Your task to perform on an android device: Open calendar and show me the first week of next month Image 0: 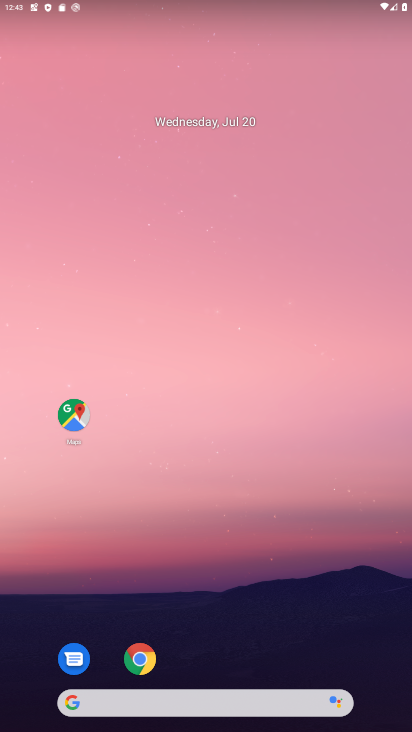
Step 0: drag from (285, 501) to (268, 123)
Your task to perform on an android device: Open calendar and show me the first week of next month Image 1: 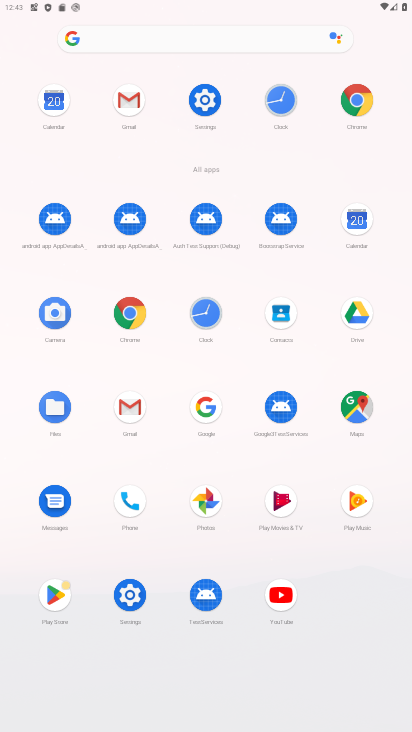
Step 1: click (363, 206)
Your task to perform on an android device: Open calendar and show me the first week of next month Image 2: 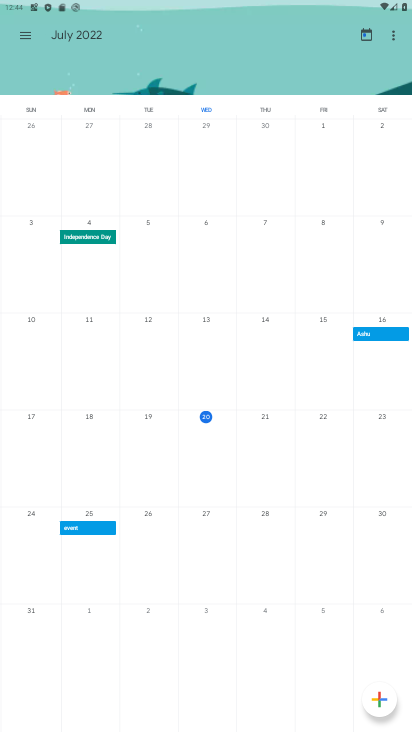
Step 2: task complete